Your task to perform on an android device: add a label to a message in the gmail app Image 0: 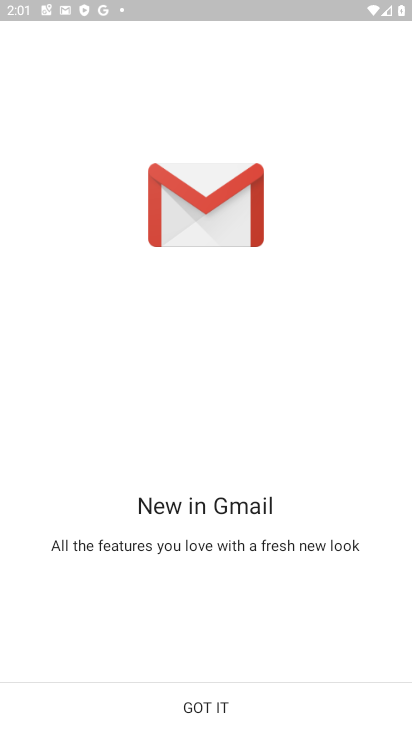
Step 0: press home button
Your task to perform on an android device: add a label to a message in the gmail app Image 1: 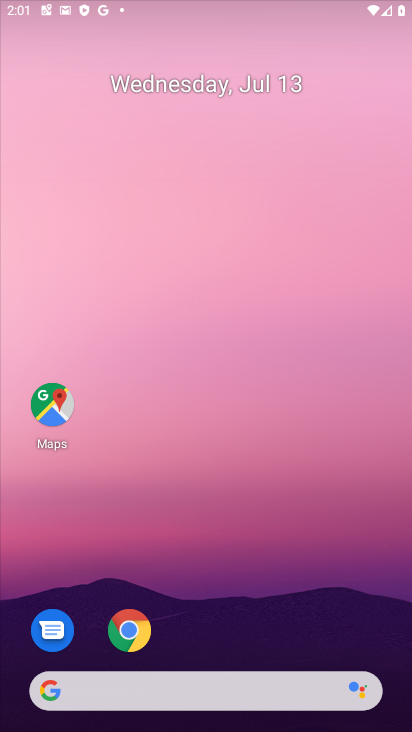
Step 1: drag from (210, 627) to (236, 145)
Your task to perform on an android device: add a label to a message in the gmail app Image 2: 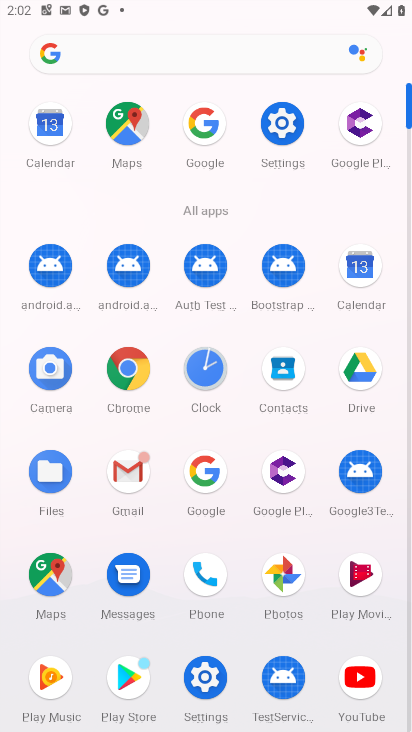
Step 2: click (132, 469)
Your task to perform on an android device: add a label to a message in the gmail app Image 3: 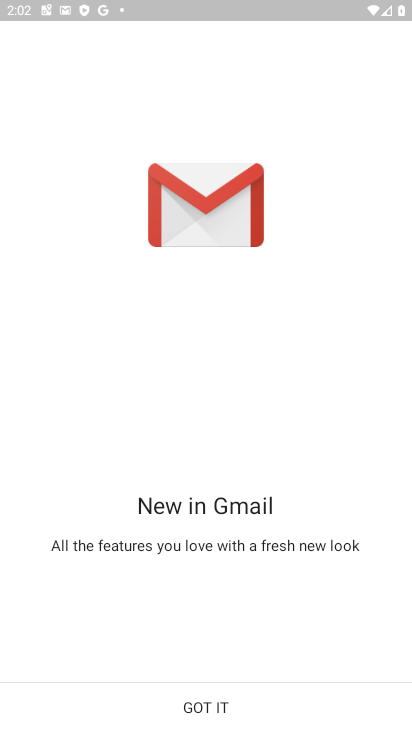
Step 3: click (217, 716)
Your task to perform on an android device: add a label to a message in the gmail app Image 4: 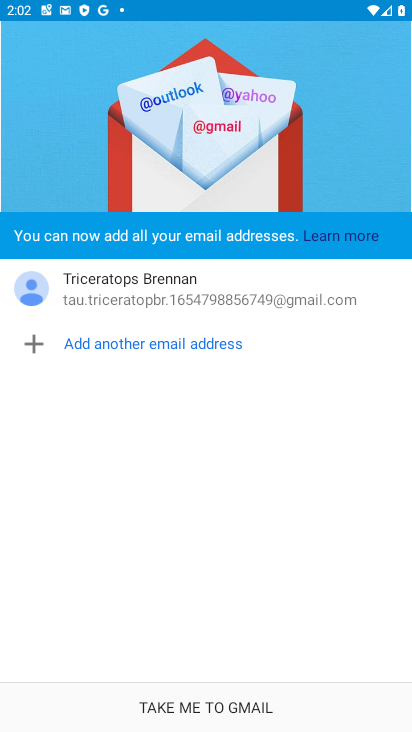
Step 4: click (188, 703)
Your task to perform on an android device: add a label to a message in the gmail app Image 5: 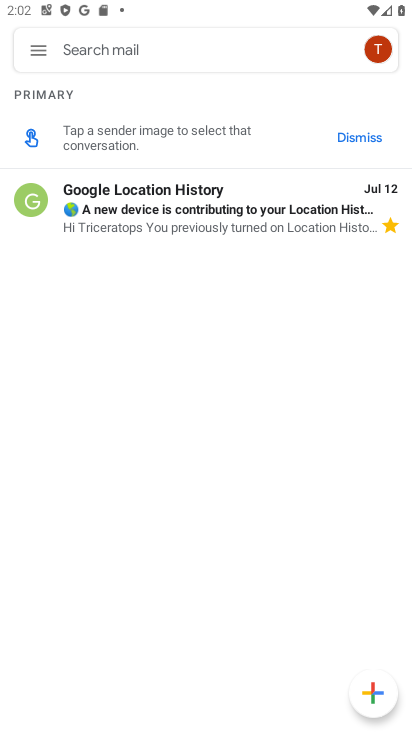
Step 5: click (30, 47)
Your task to perform on an android device: add a label to a message in the gmail app Image 6: 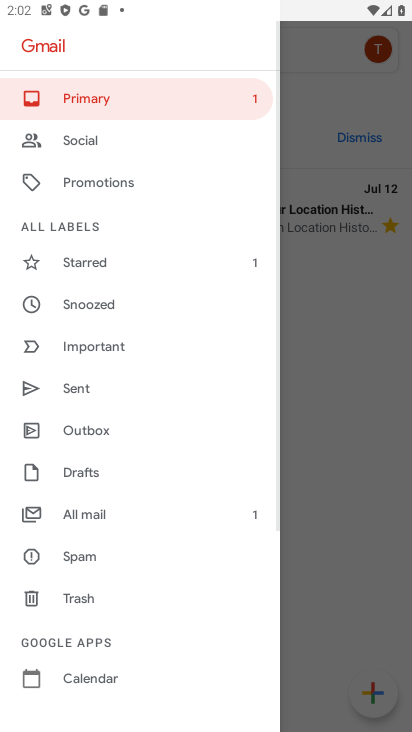
Step 6: drag from (114, 659) to (131, 290)
Your task to perform on an android device: add a label to a message in the gmail app Image 7: 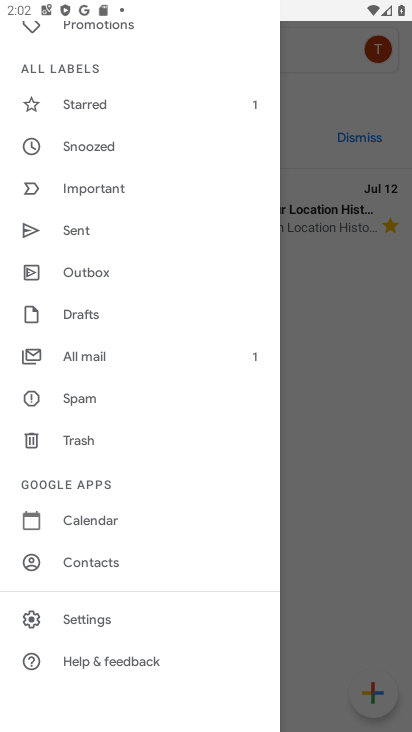
Step 7: click (91, 359)
Your task to perform on an android device: add a label to a message in the gmail app Image 8: 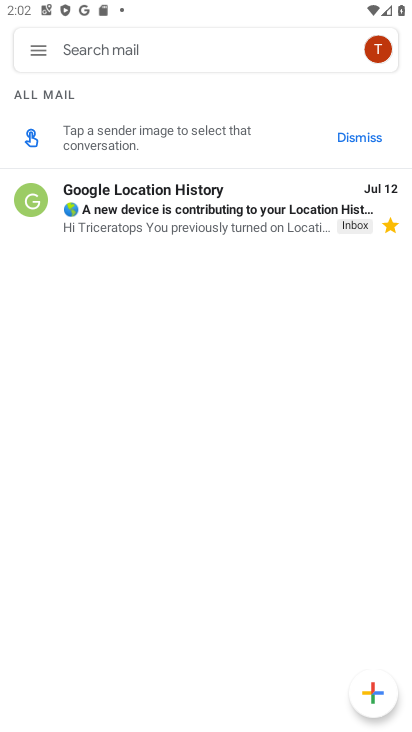
Step 8: click (152, 202)
Your task to perform on an android device: add a label to a message in the gmail app Image 9: 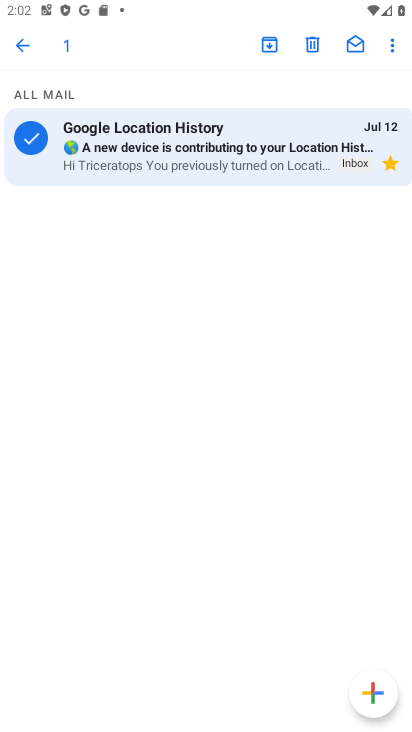
Step 9: click (393, 48)
Your task to perform on an android device: add a label to a message in the gmail app Image 10: 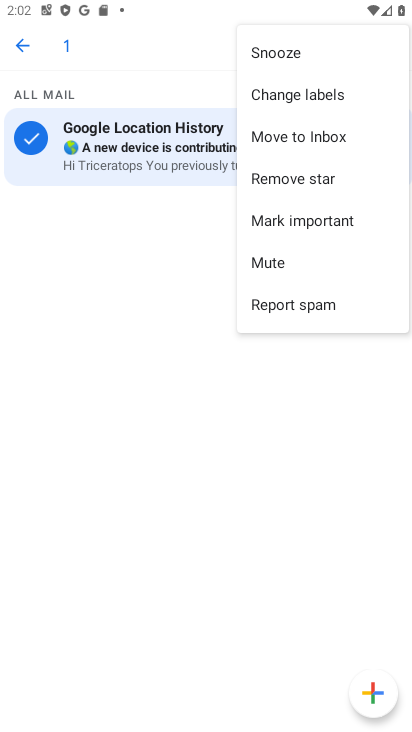
Step 10: task complete